Your task to perform on an android device: turn off sleep mode Image 0: 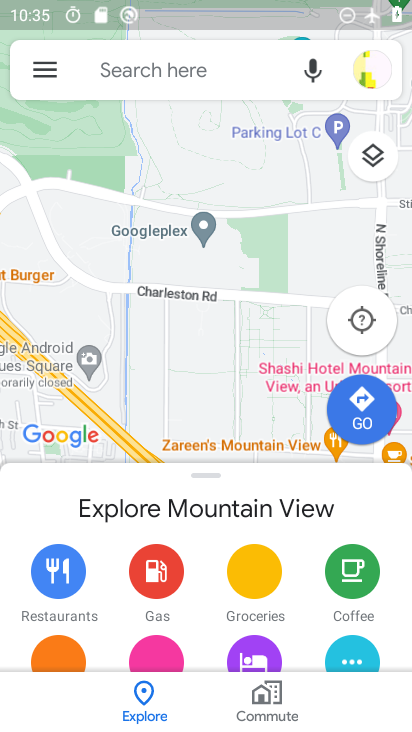
Step 0: press home button
Your task to perform on an android device: turn off sleep mode Image 1: 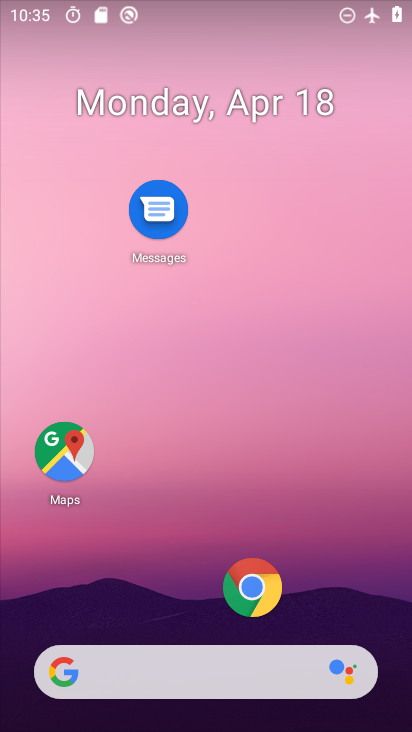
Step 1: drag from (185, 350) to (410, 298)
Your task to perform on an android device: turn off sleep mode Image 2: 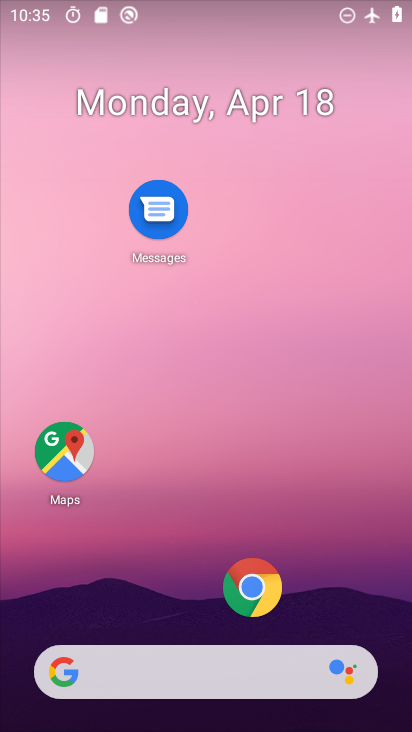
Step 2: drag from (164, 576) to (399, 138)
Your task to perform on an android device: turn off sleep mode Image 3: 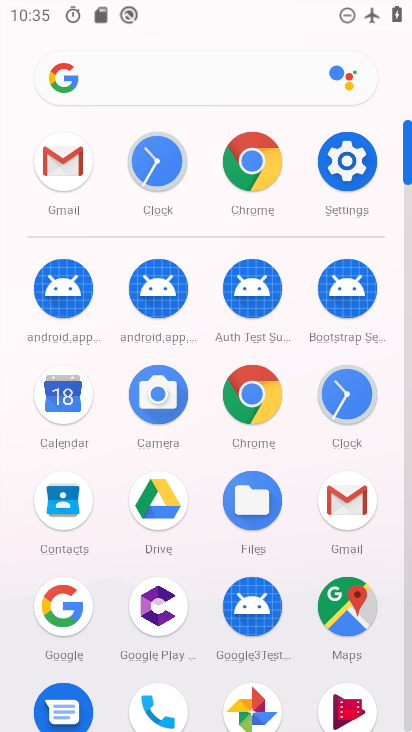
Step 3: click (357, 207)
Your task to perform on an android device: turn off sleep mode Image 4: 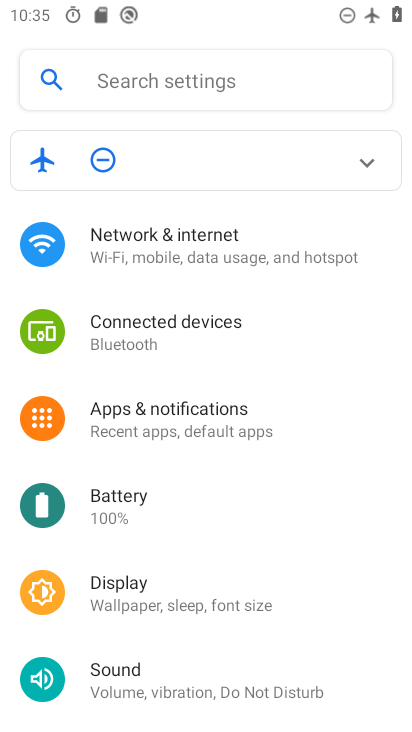
Step 4: click (222, 83)
Your task to perform on an android device: turn off sleep mode Image 5: 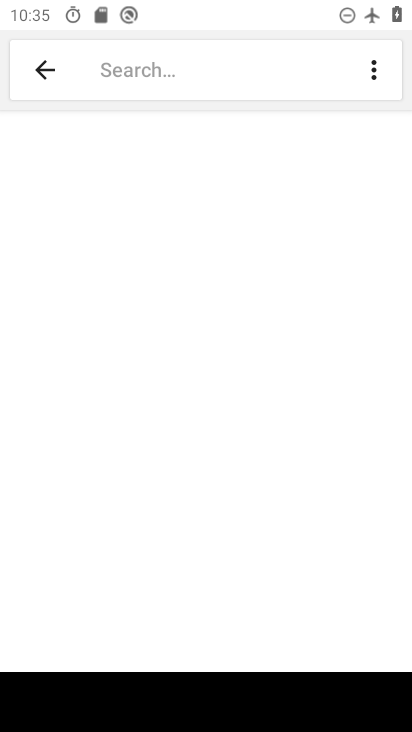
Step 5: type "sleep mode"
Your task to perform on an android device: turn off sleep mode Image 6: 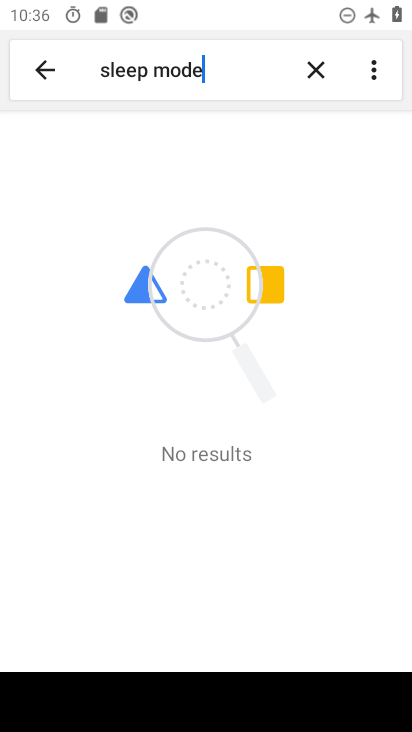
Step 6: task complete